Your task to perform on an android device: turn off wifi Image 0: 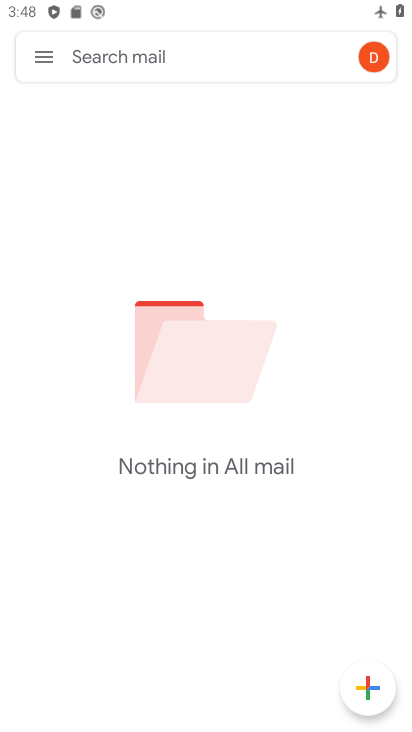
Step 0: press home button
Your task to perform on an android device: turn off wifi Image 1: 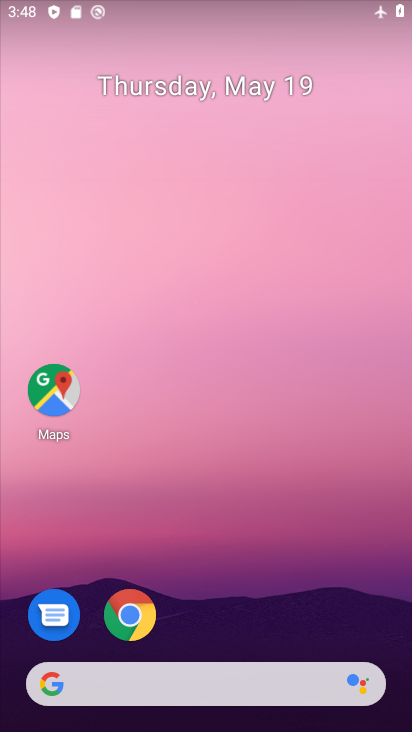
Step 1: drag from (265, 648) to (315, 16)
Your task to perform on an android device: turn off wifi Image 2: 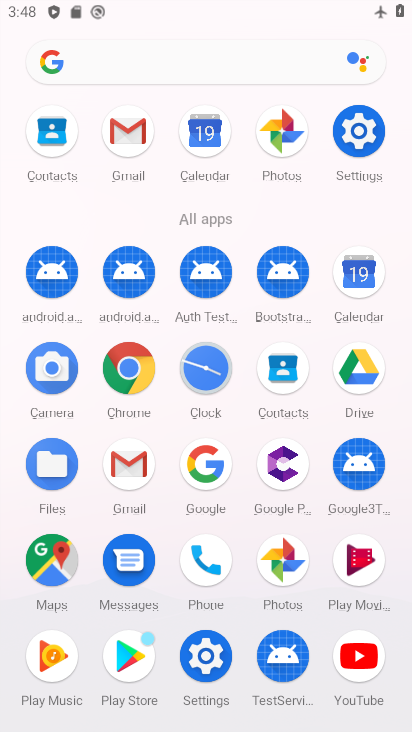
Step 2: click (361, 128)
Your task to perform on an android device: turn off wifi Image 3: 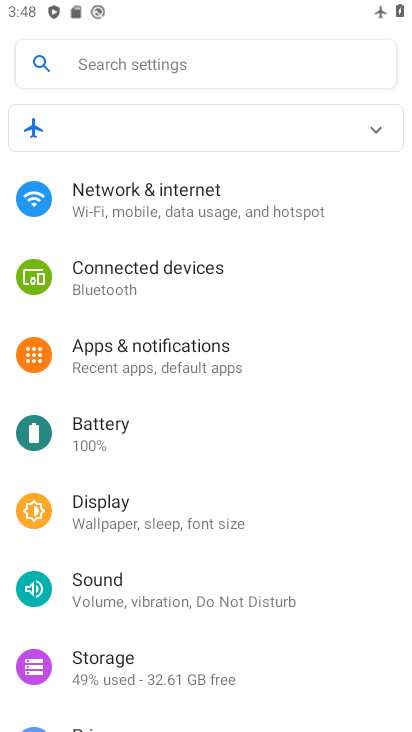
Step 3: click (134, 197)
Your task to perform on an android device: turn off wifi Image 4: 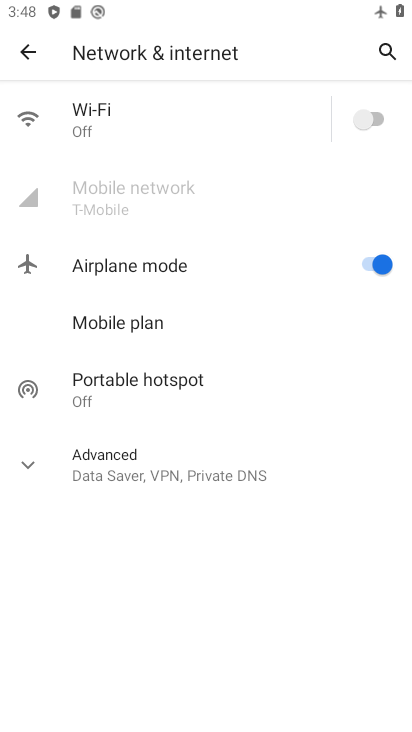
Step 4: task complete